Your task to perform on an android device: change text size in settings app Image 0: 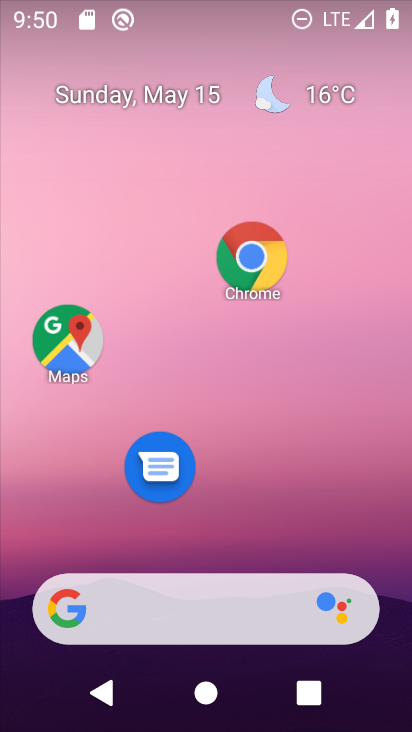
Step 0: drag from (223, 519) to (246, 46)
Your task to perform on an android device: change text size in settings app Image 1: 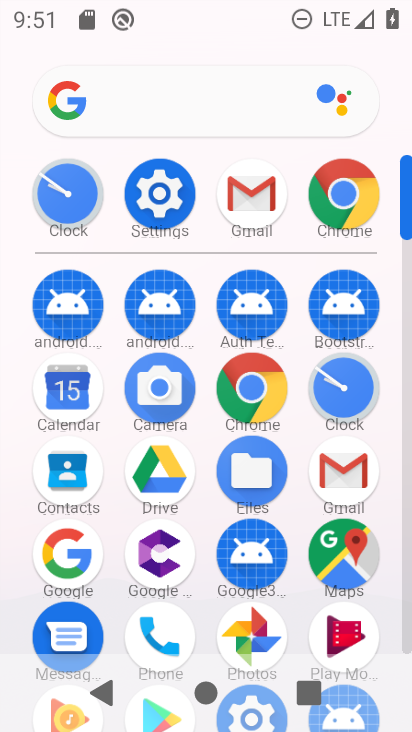
Step 1: click (170, 200)
Your task to perform on an android device: change text size in settings app Image 2: 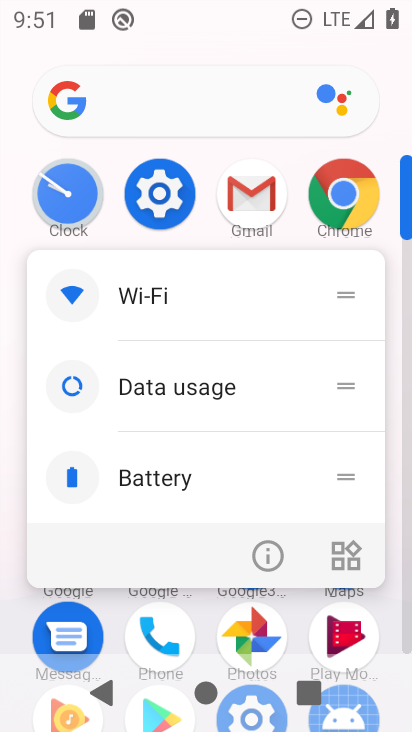
Step 2: click (160, 186)
Your task to perform on an android device: change text size in settings app Image 3: 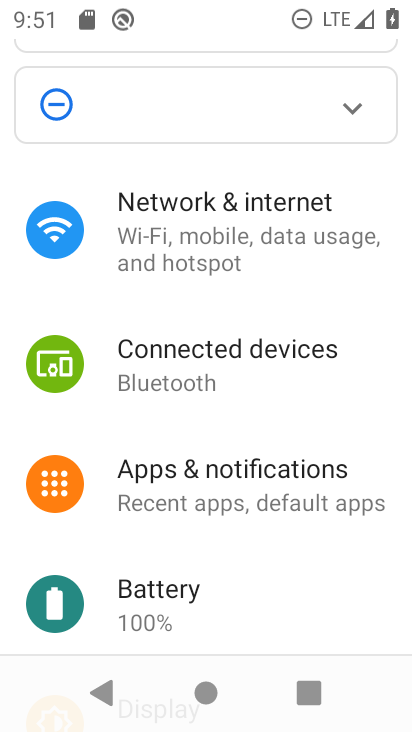
Step 3: drag from (213, 558) to (253, 238)
Your task to perform on an android device: change text size in settings app Image 4: 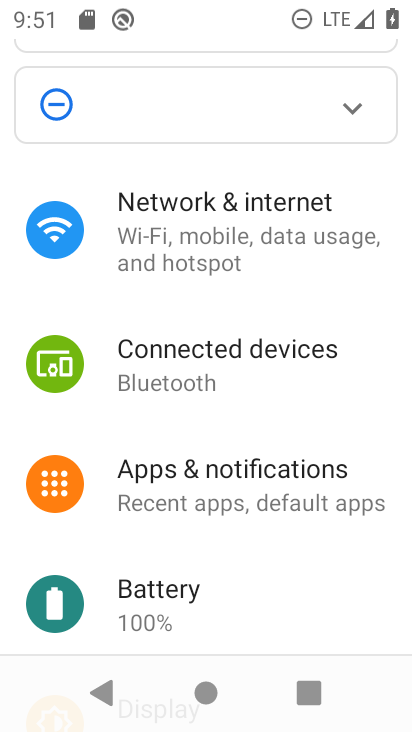
Step 4: drag from (263, 604) to (279, 4)
Your task to perform on an android device: change text size in settings app Image 5: 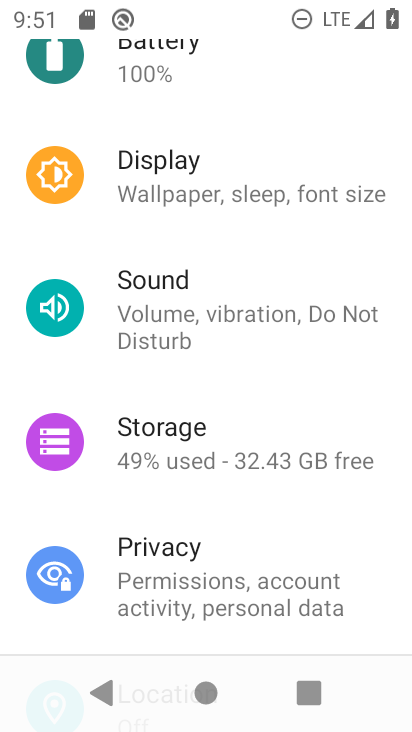
Step 5: click (232, 183)
Your task to perform on an android device: change text size in settings app Image 6: 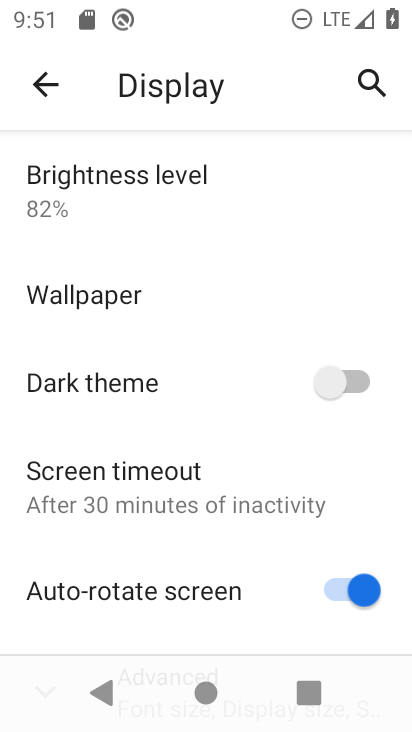
Step 6: drag from (147, 540) to (204, 152)
Your task to perform on an android device: change text size in settings app Image 7: 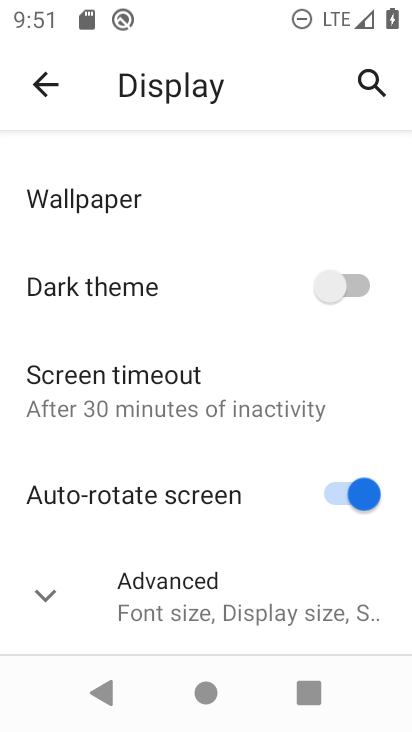
Step 7: click (214, 616)
Your task to perform on an android device: change text size in settings app Image 8: 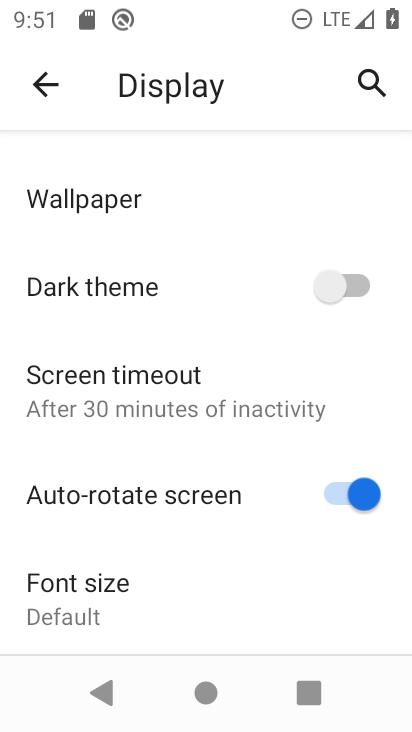
Step 8: click (214, 616)
Your task to perform on an android device: change text size in settings app Image 9: 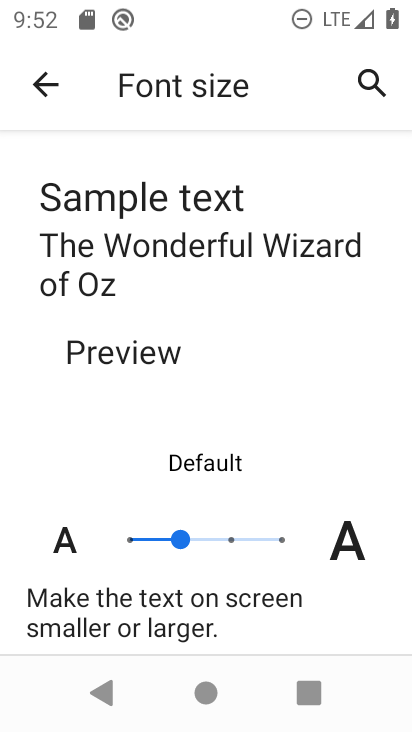
Step 9: click (133, 540)
Your task to perform on an android device: change text size in settings app Image 10: 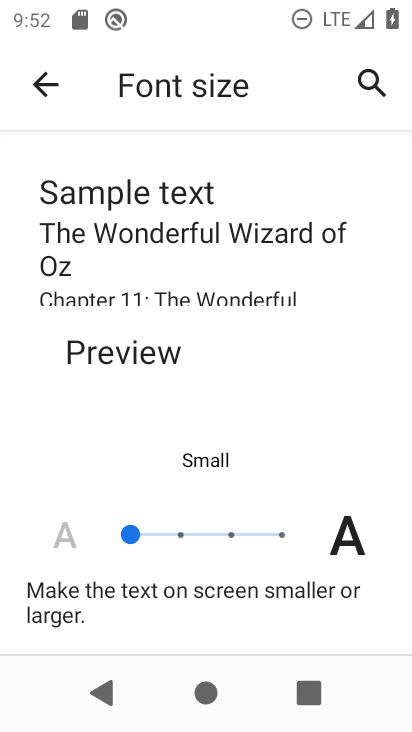
Step 10: task complete